Your task to perform on an android device: Is it going to rain this weekend? Image 0: 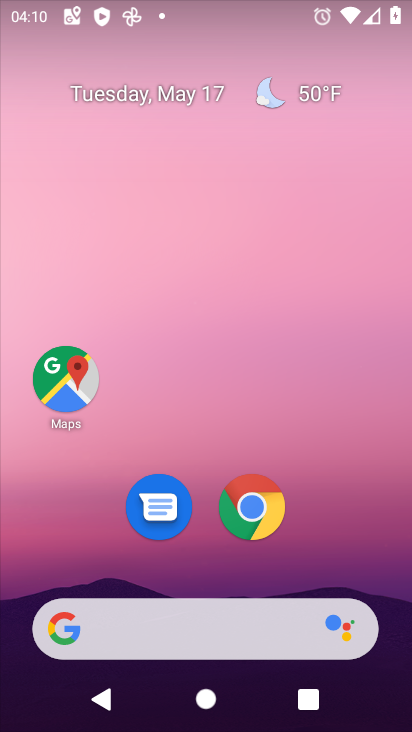
Step 0: click (322, 85)
Your task to perform on an android device: Is it going to rain this weekend? Image 1: 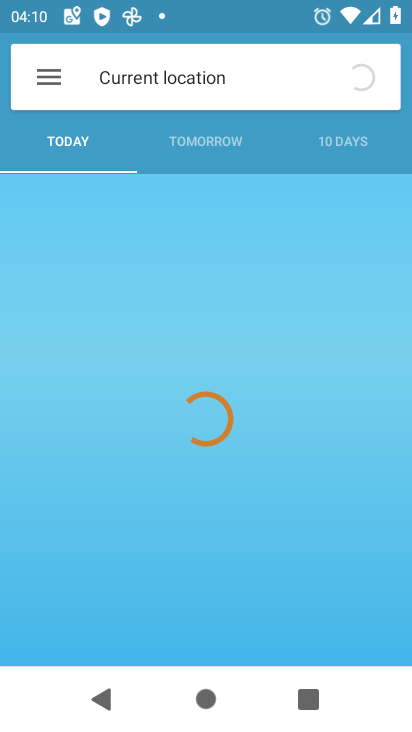
Step 1: click (354, 135)
Your task to perform on an android device: Is it going to rain this weekend? Image 2: 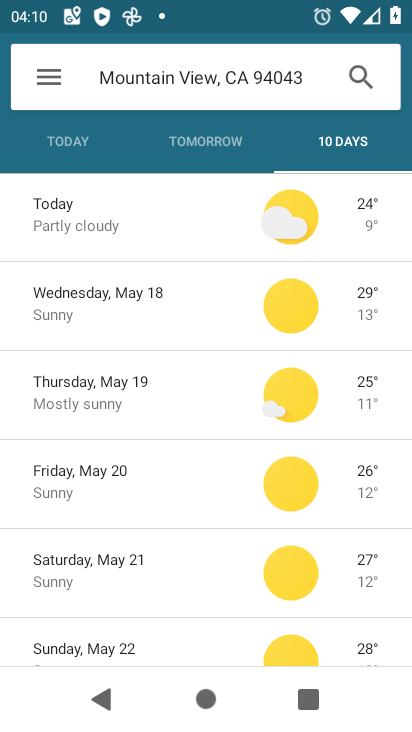
Step 2: task complete